Your task to perform on an android device: change the clock display to analog Image 0: 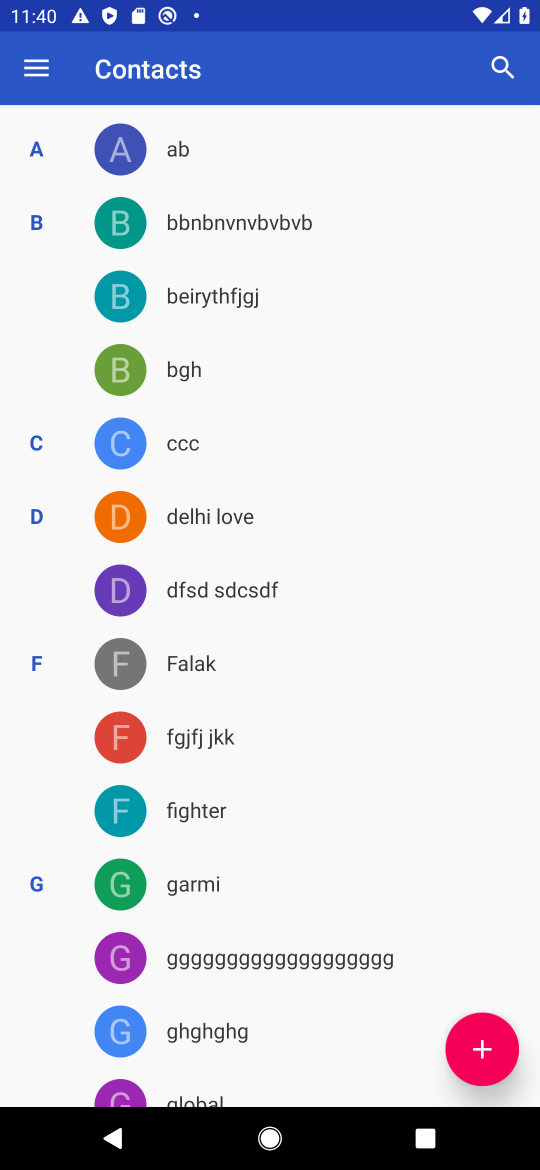
Step 0: press home button
Your task to perform on an android device: change the clock display to analog Image 1: 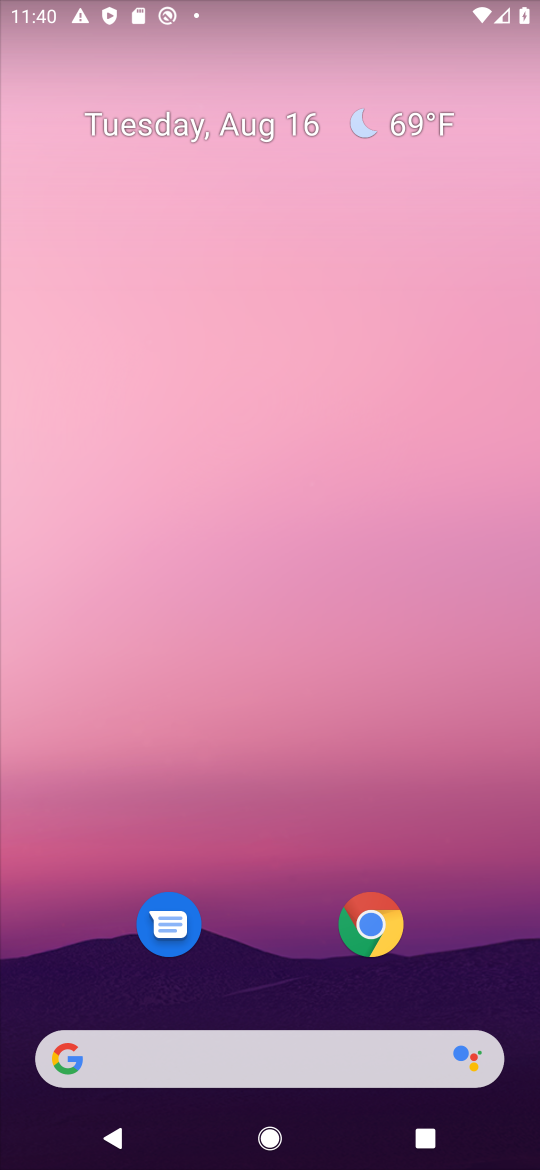
Step 1: drag from (259, 885) to (274, 149)
Your task to perform on an android device: change the clock display to analog Image 2: 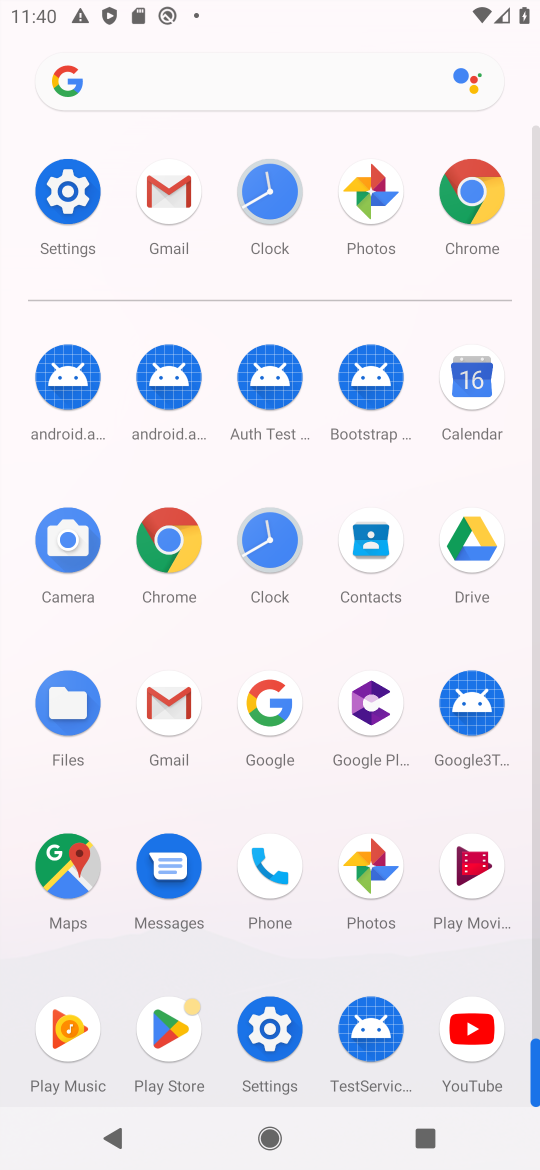
Step 2: click (274, 171)
Your task to perform on an android device: change the clock display to analog Image 3: 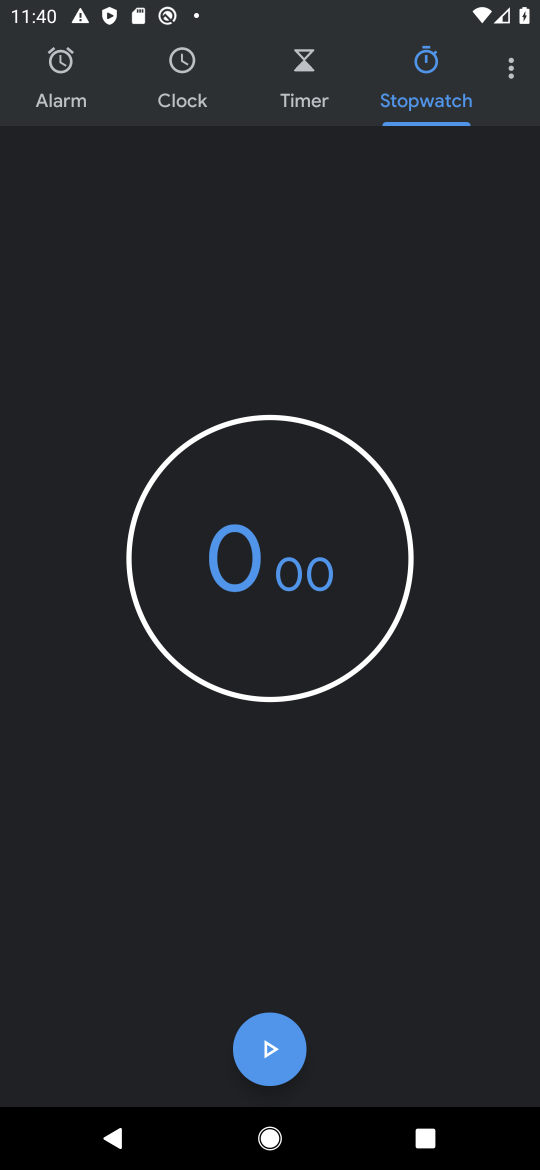
Step 3: click (523, 59)
Your task to perform on an android device: change the clock display to analog Image 4: 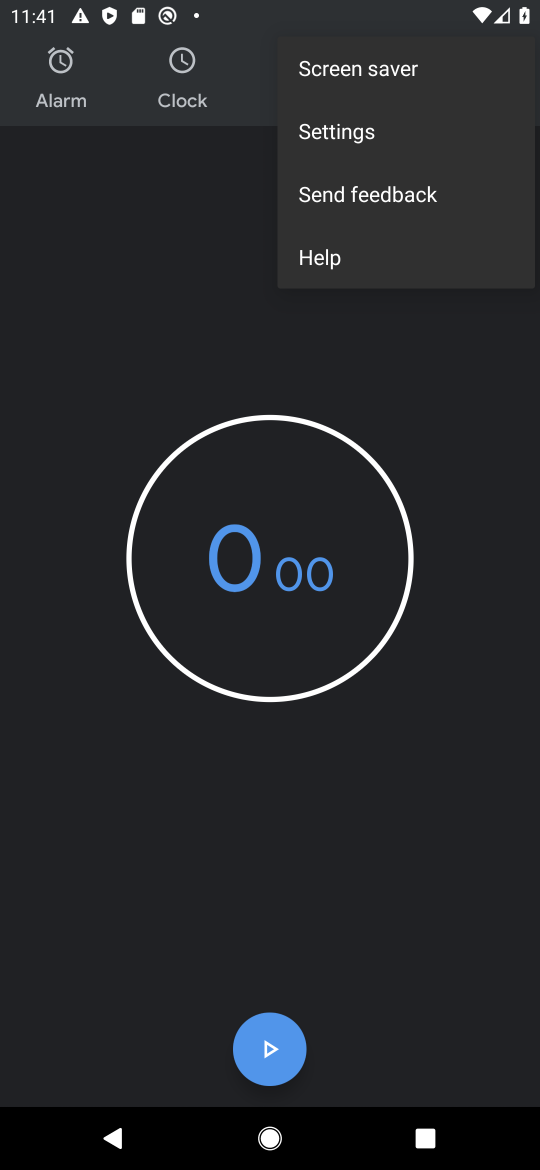
Step 4: click (360, 146)
Your task to perform on an android device: change the clock display to analog Image 5: 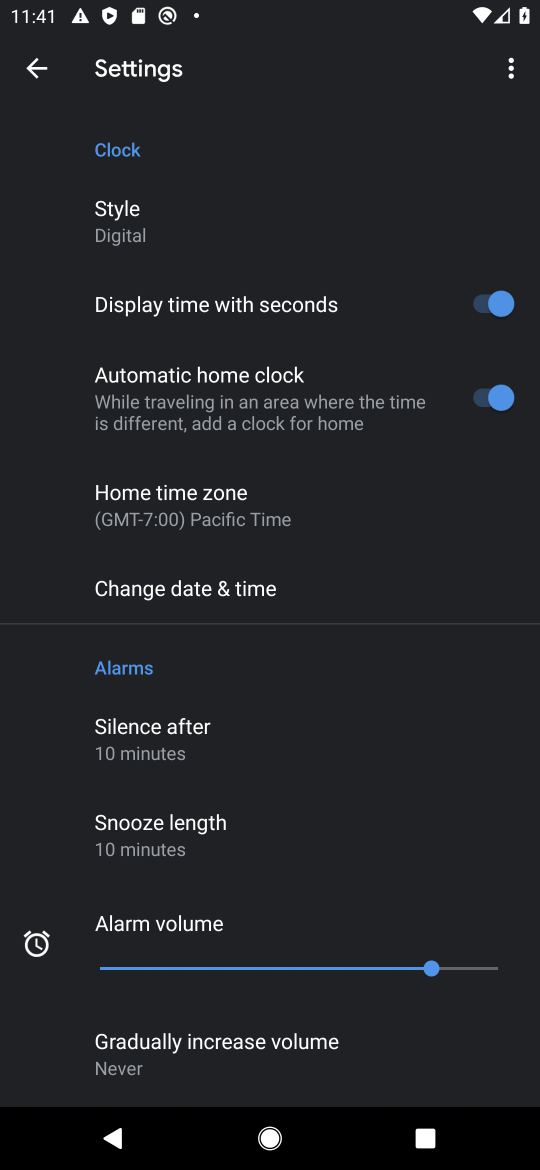
Step 5: click (165, 251)
Your task to perform on an android device: change the clock display to analog Image 6: 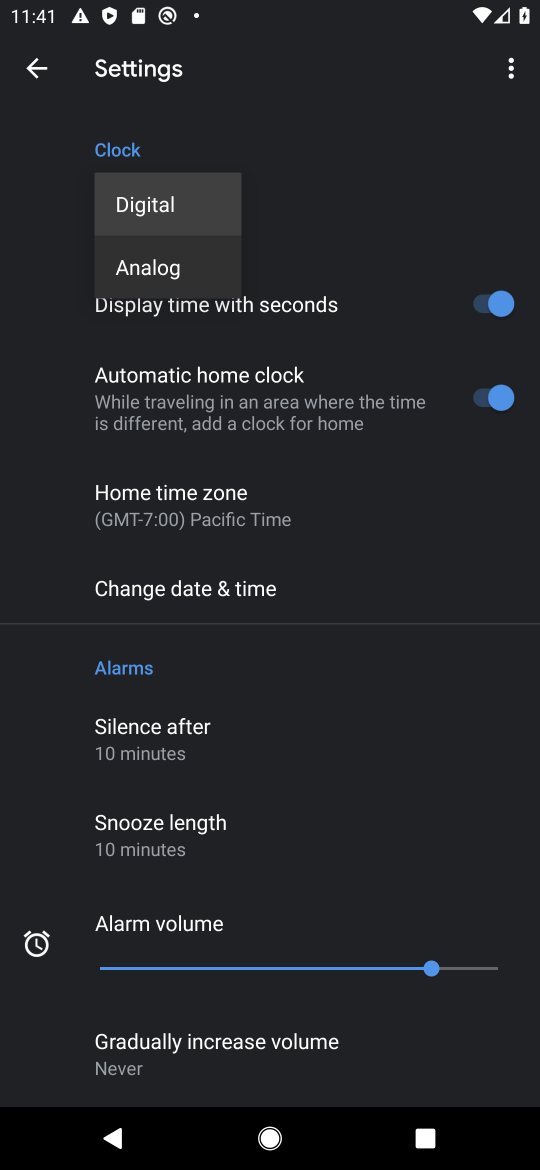
Step 6: click (165, 251)
Your task to perform on an android device: change the clock display to analog Image 7: 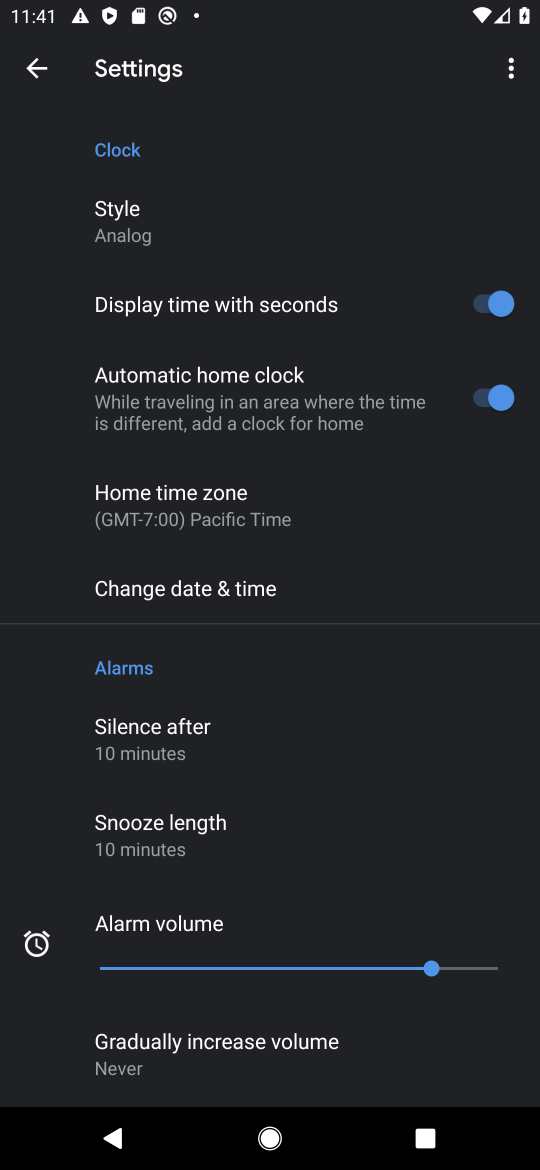
Step 7: task complete